Your task to perform on an android device: Play the new Drake video on YouTube Image 0: 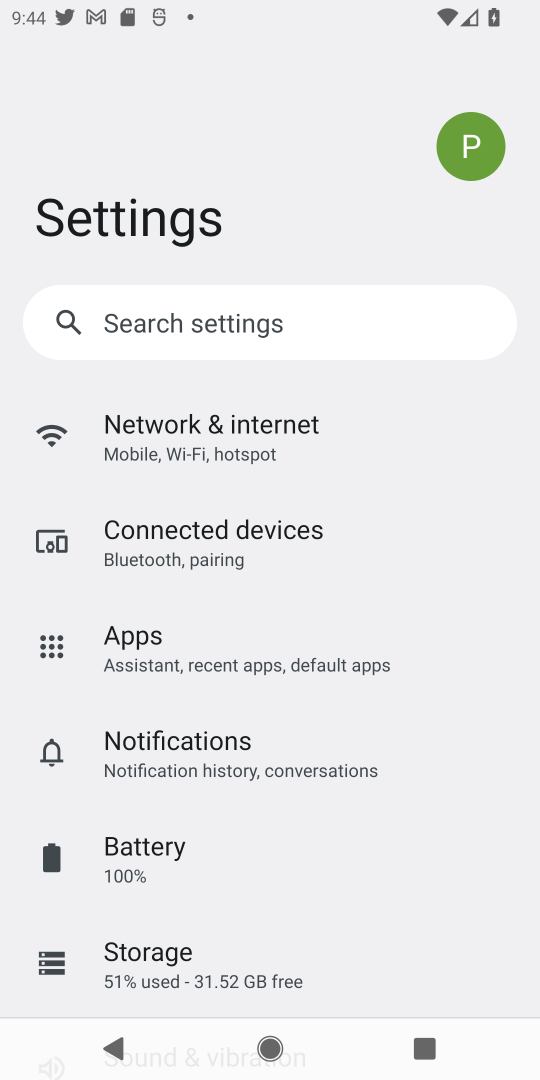
Step 0: press home button
Your task to perform on an android device: Play the new Drake video on YouTube Image 1: 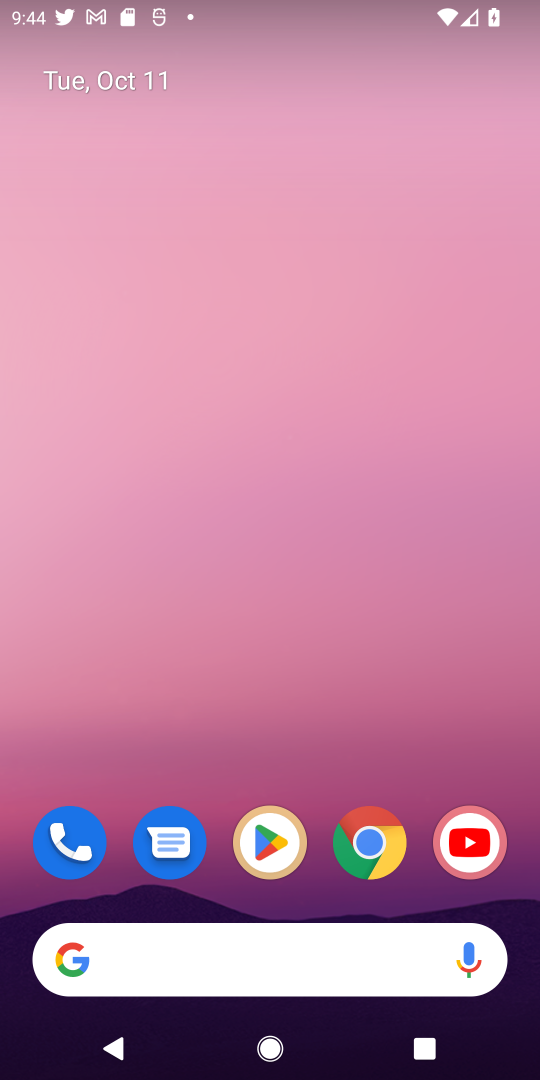
Step 1: drag from (289, 702) to (391, 350)
Your task to perform on an android device: Play the new Drake video on YouTube Image 2: 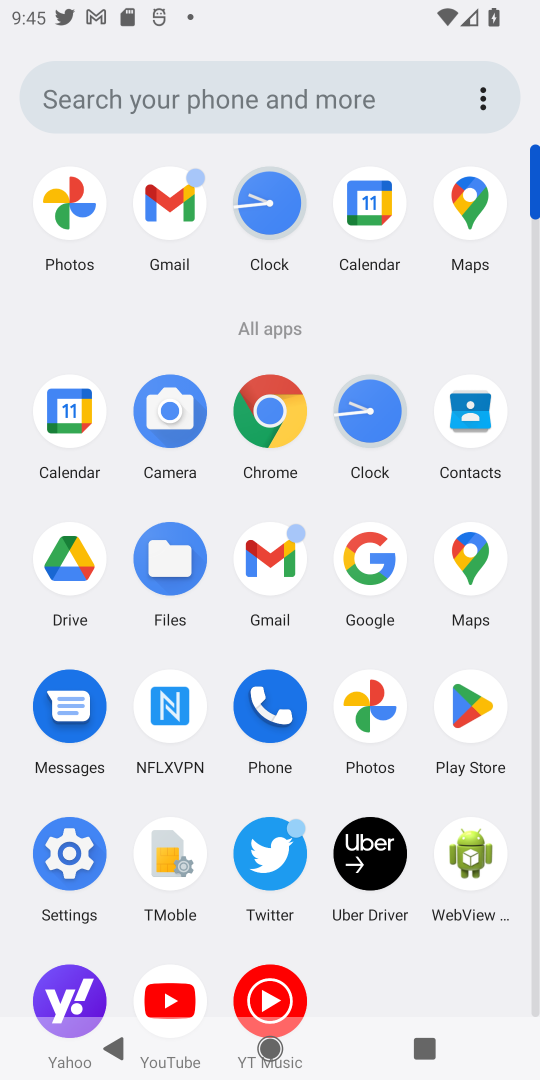
Step 2: click (165, 1002)
Your task to perform on an android device: Play the new Drake video on YouTube Image 3: 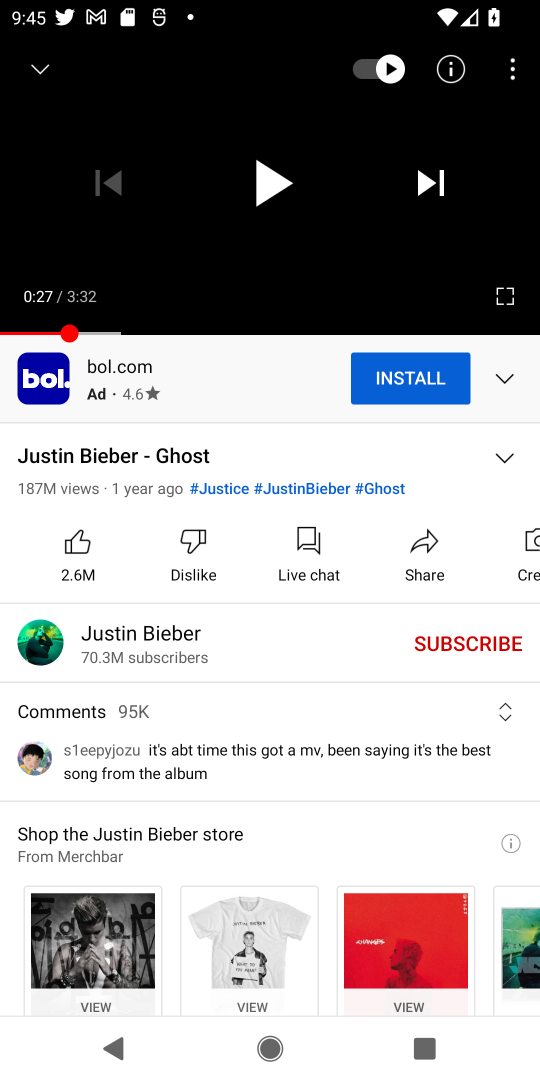
Step 3: type "drake video "
Your task to perform on an android device: Play the new Drake video on YouTube Image 4: 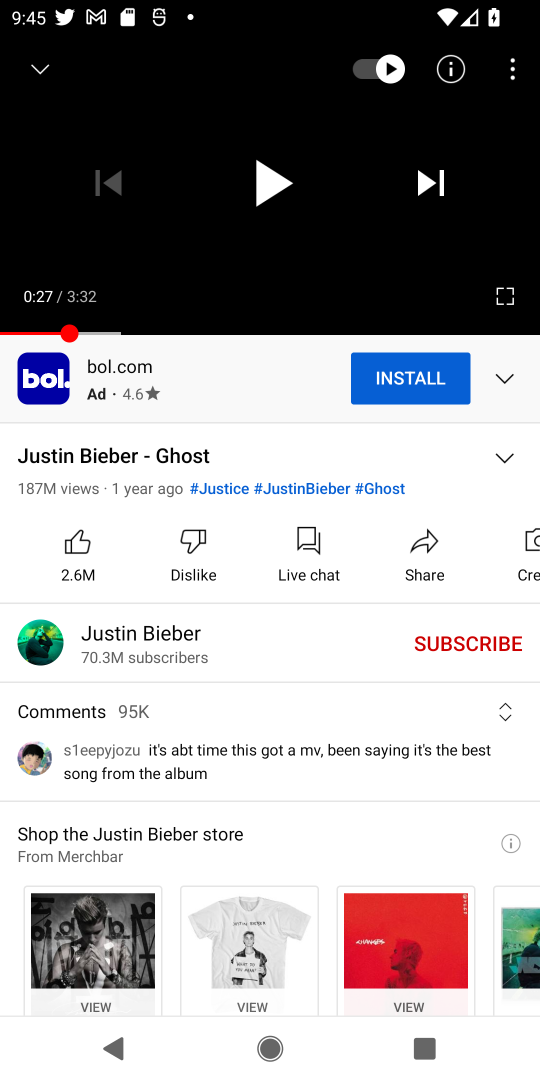
Step 4: type ""
Your task to perform on an android device: Play the new Drake video on YouTube Image 5: 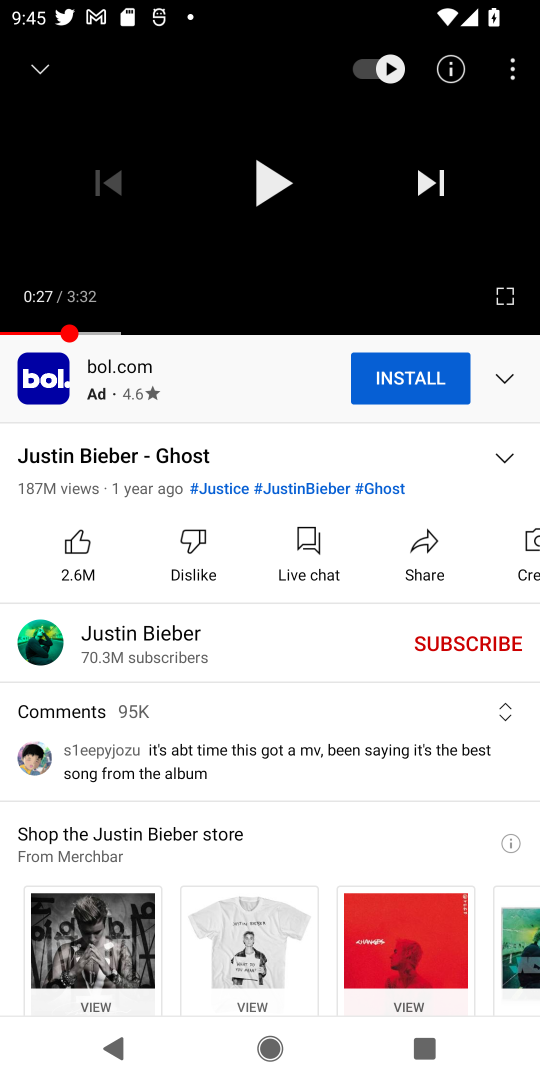
Step 5: drag from (310, 236) to (251, 823)
Your task to perform on an android device: Play the new Drake video on YouTube Image 6: 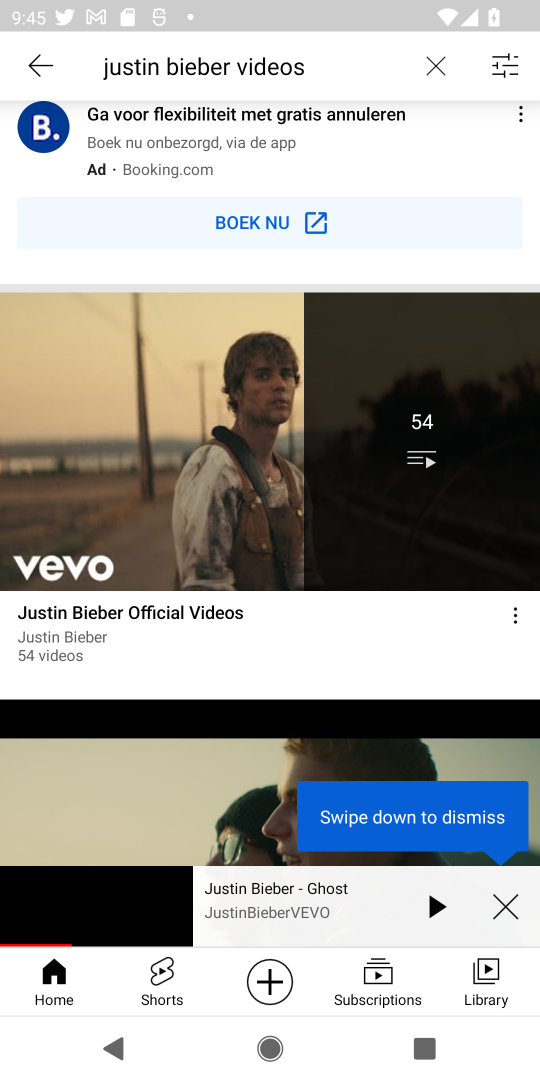
Step 6: click (446, 56)
Your task to perform on an android device: Play the new Drake video on YouTube Image 7: 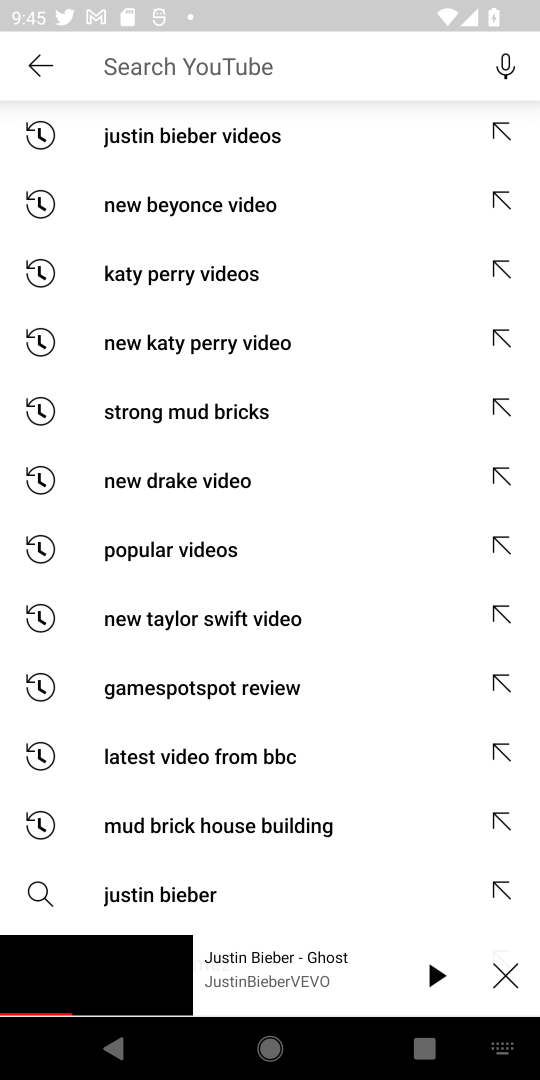
Step 7: type "drake video "
Your task to perform on an android device: Play the new Drake video on YouTube Image 8: 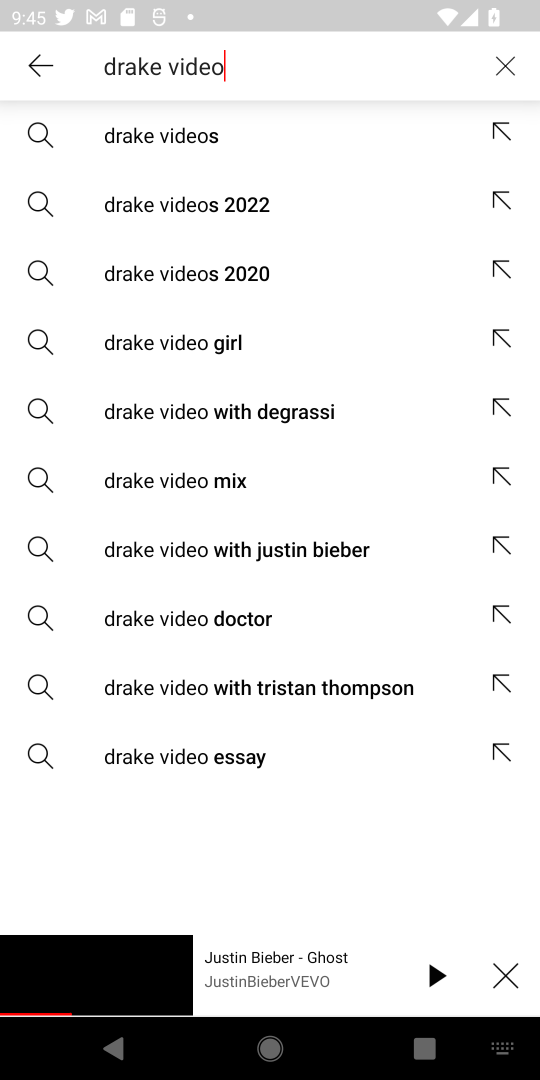
Step 8: type ""
Your task to perform on an android device: Play the new Drake video on YouTube Image 9: 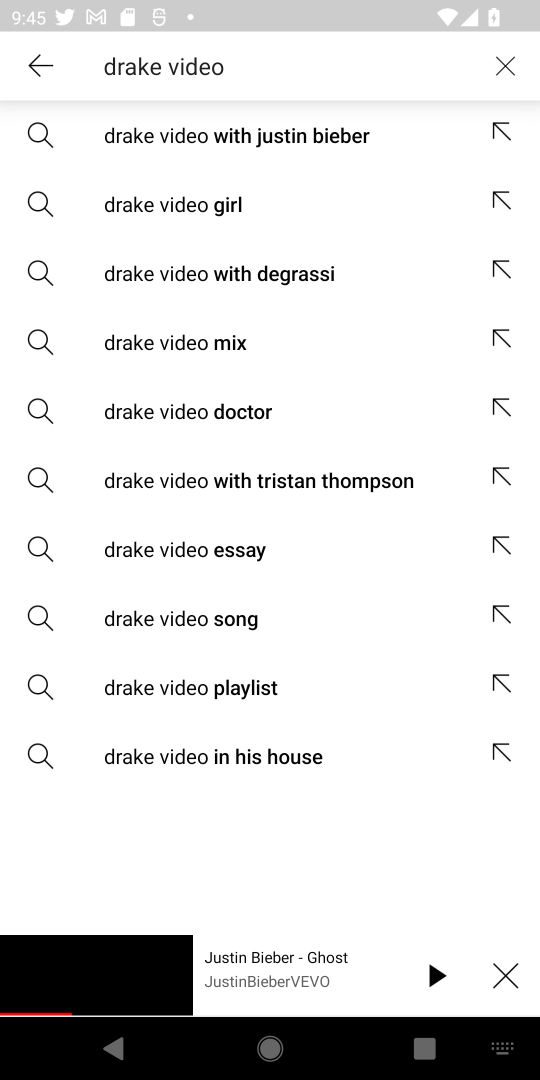
Step 9: click (276, 135)
Your task to perform on an android device: Play the new Drake video on YouTube Image 10: 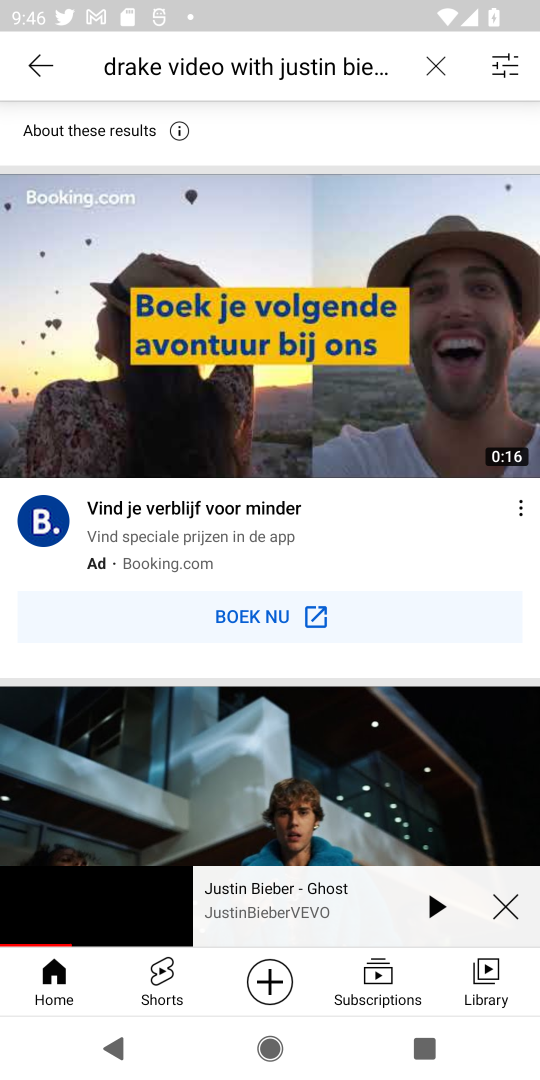
Step 10: click (505, 909)
Your task to perform on an android device: Play the new Drake video on YouTube Image 11: 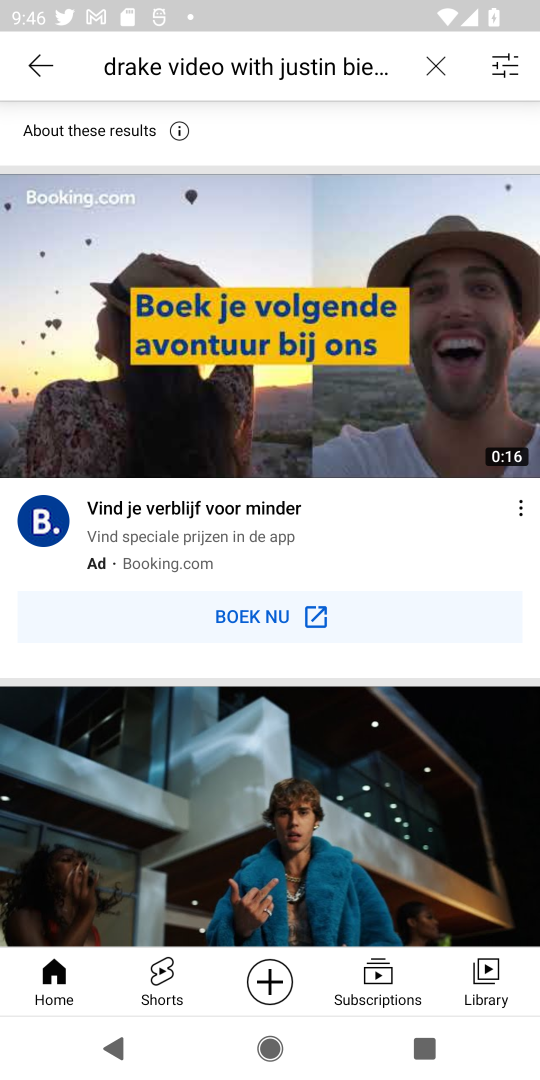
Step 11: task complete